Your task to perform on an android device: Open display settings Image 0: 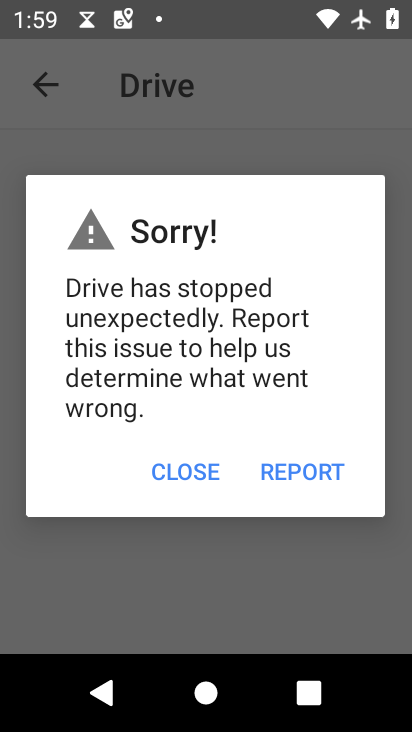
Step 0: press home button
Your task to perform on an android device: Open display settings Image 1: 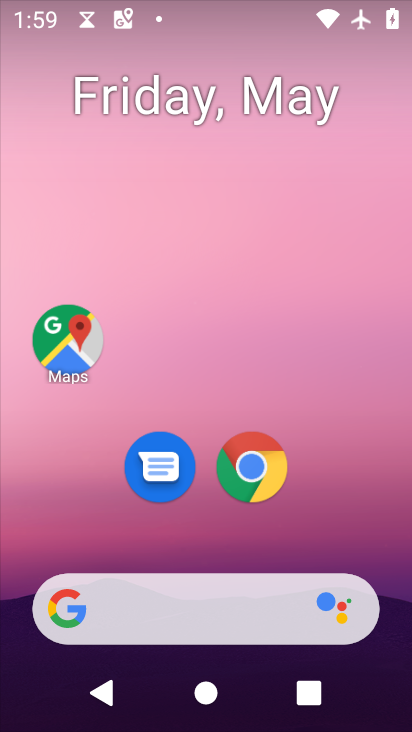
Step 1: drag from (342, 493) to (338, 62)
Your task to perform on an android device: Open display settings Image 2: 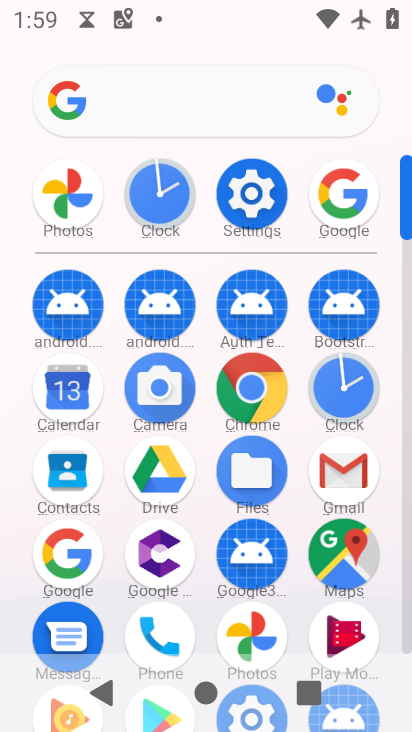
Step 2: click (251, 188)
Your task to perform on an android device: Open display settings Image 3: 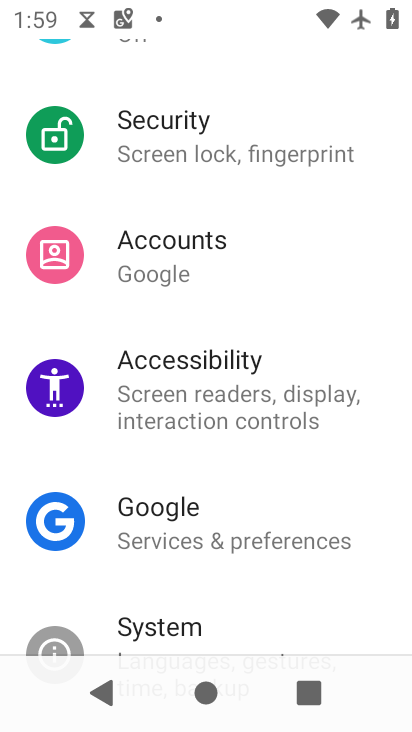
Step 3: drag from (217, 463) to (249, 334)
Your task to perform on an android device: Open display settings Image 4: 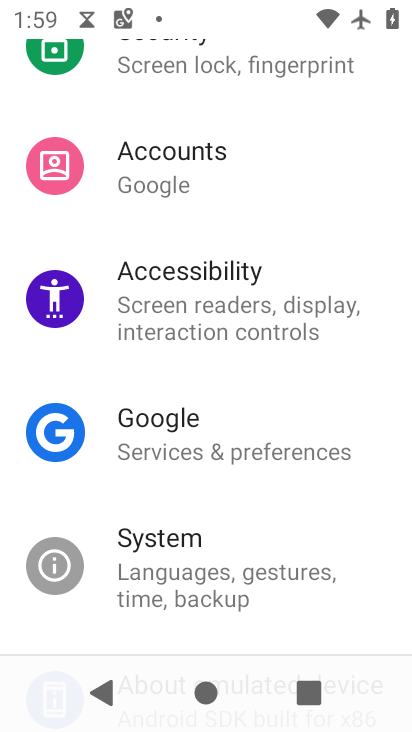
Step 4: drag from (281, 225) to (289, 397)
Your task to perform on an android device: Open display settings Image 5: 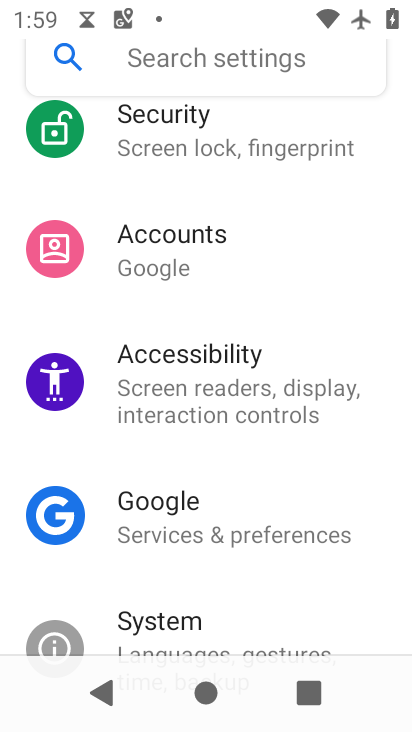
Step 5: drag from (250, 189) to (266, 421)
Your task to perform on an android device: Open display settings Image 6: 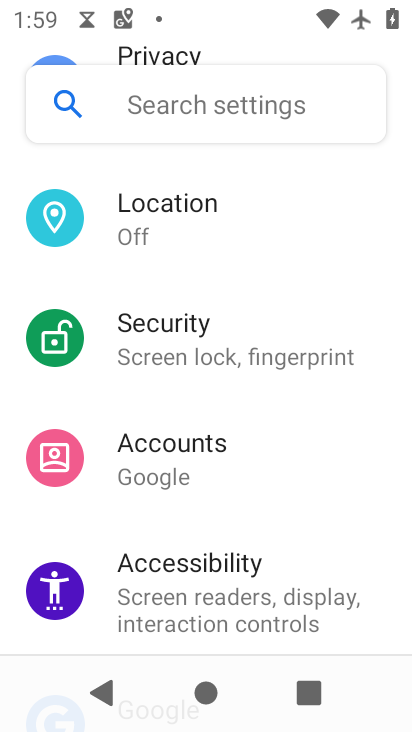
Step 6: drag from (236, 241) to (224, 405)
Your task to perform on an android device: Open display settings Image 7: 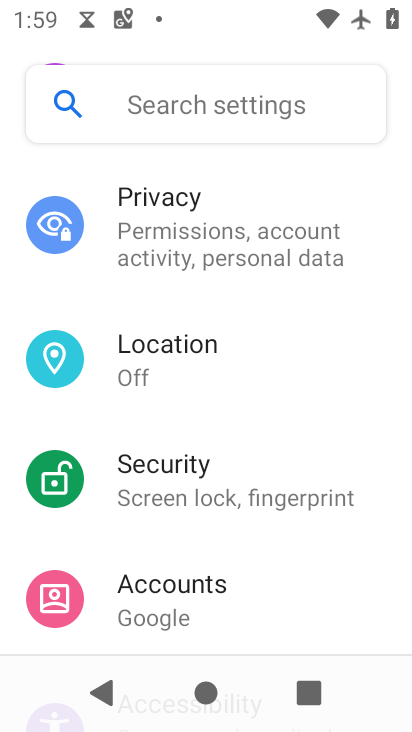
Step 7: drag from (237, 304) to (248, 447)
Your task to perform on an android device: Open display settings Image 8: 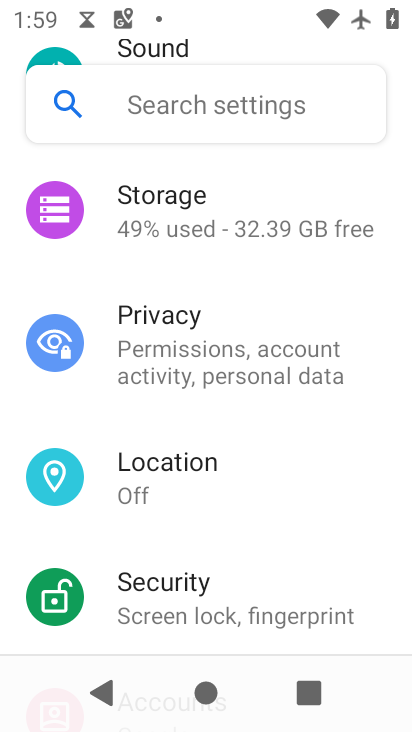
Step 8: drag from (243, 328) to (285, 489)
Your task to perform on an android device: Open display settings Image 9: 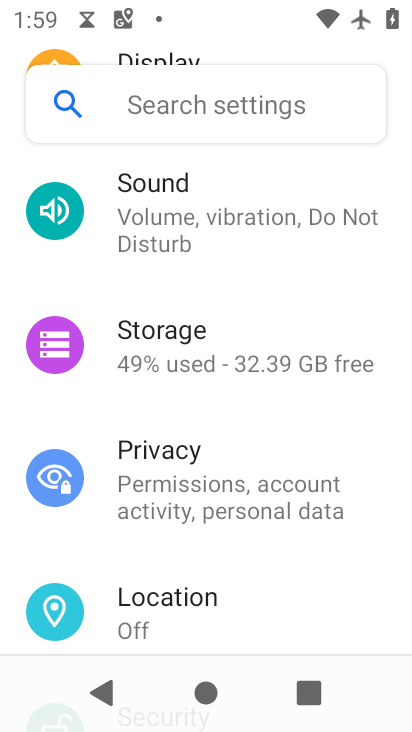
Step 9: drag from (231, 290) to (211, 438)
Your task to perform on an android device: Open display settings Image 10: 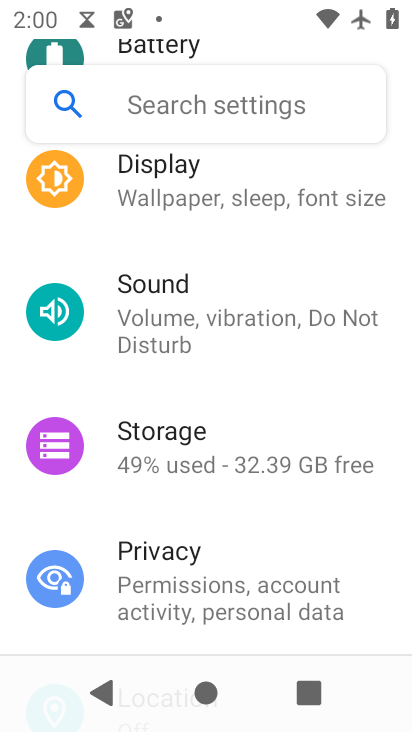
Step 10: click (197, 163)
Your task to perform on an android device: Open display settings Image 11: 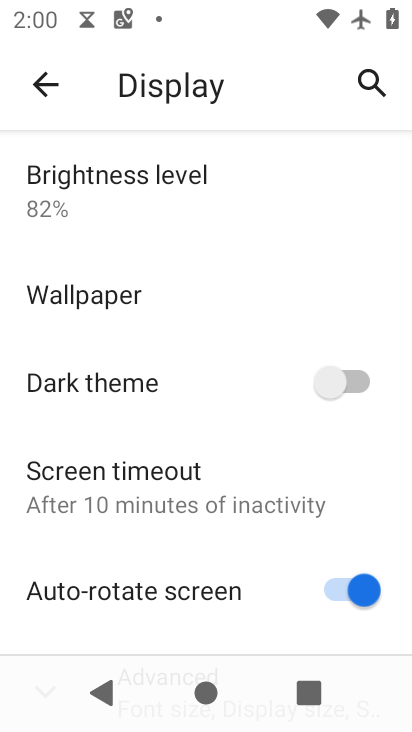
Step 11: task complete